Your task to perform on an android device: change text size in settings app Image 0: 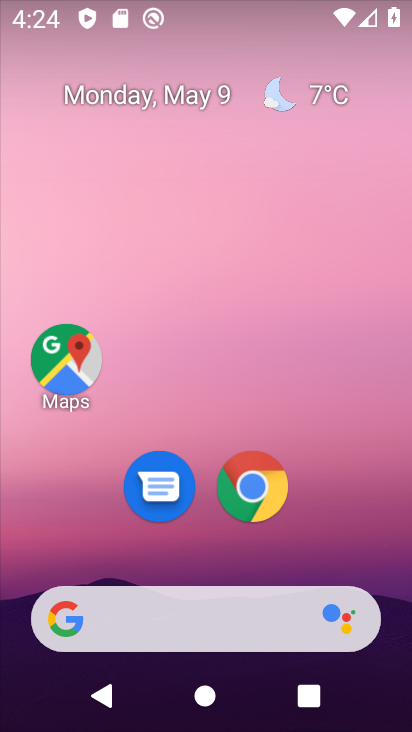
Step 0: drag from (212, 521) to (268, 215)
Your task to perform on an android device: change text size in settings app Image 1: 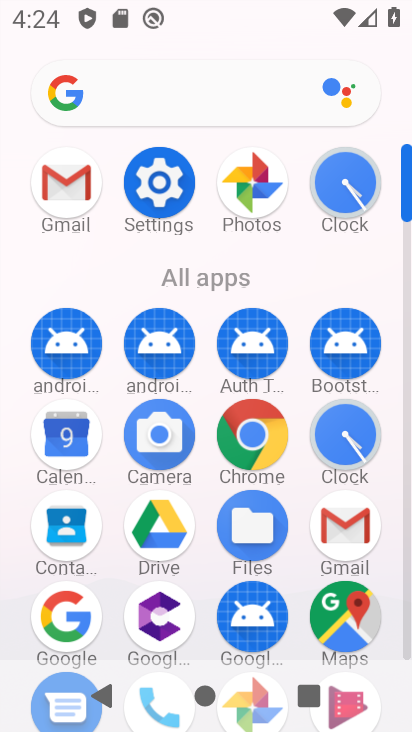
Step 1: click (171, 191)
Your task to perform on an android device: change text size in settings app Image 2: 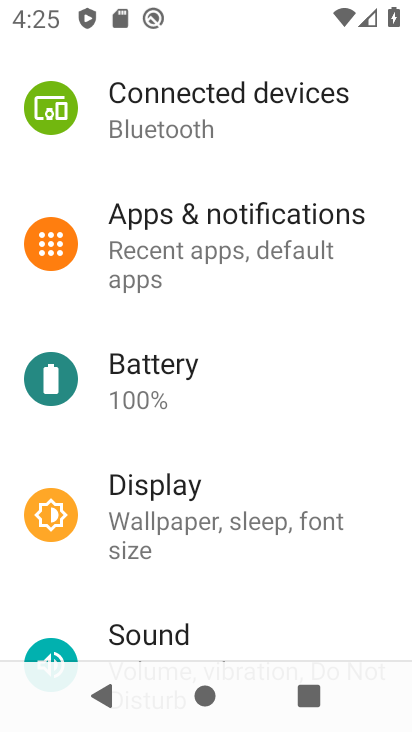
Step 2: click (210, 505)
Your task to perform on an android device: change text size in settings app Image 3: 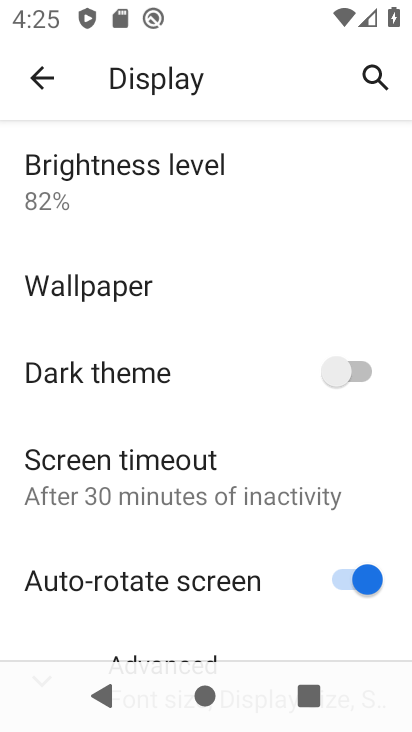
Step 3: drag from (184, 505) to (264, 183)
Your task to perform on an android device: change text size in settings app Image 4: 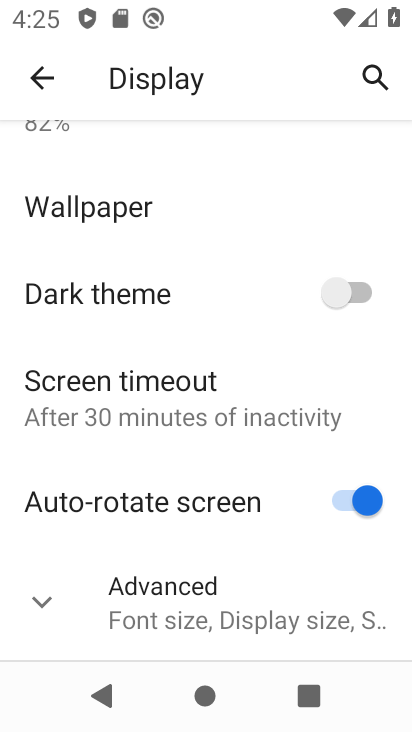
Step 4: click (204, 591)
Your task to perform on an android device: change text size in settings app Image 5: 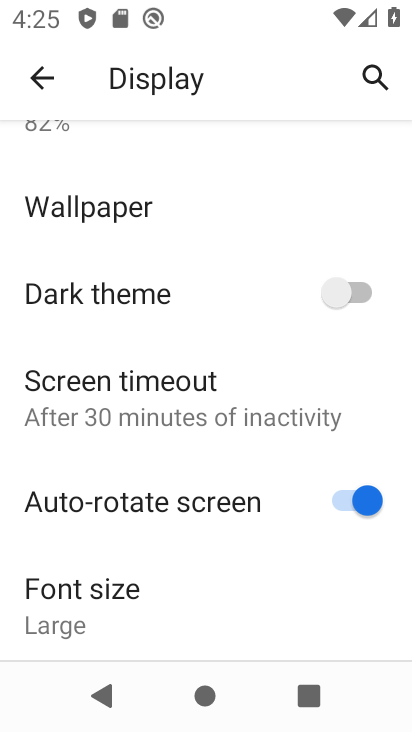
Step 5: click (139, 599)
Your task to perform on an android device: change text size in settings app Image 6: 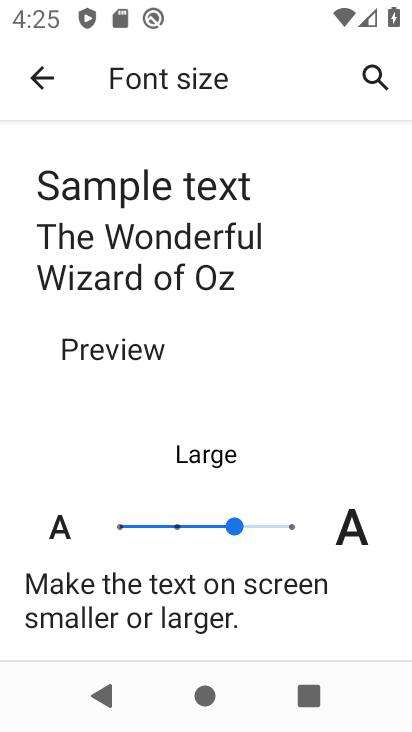
Step 6: click (176, 530)
Your task to perform on an android device: change text size in settings app Image 7: 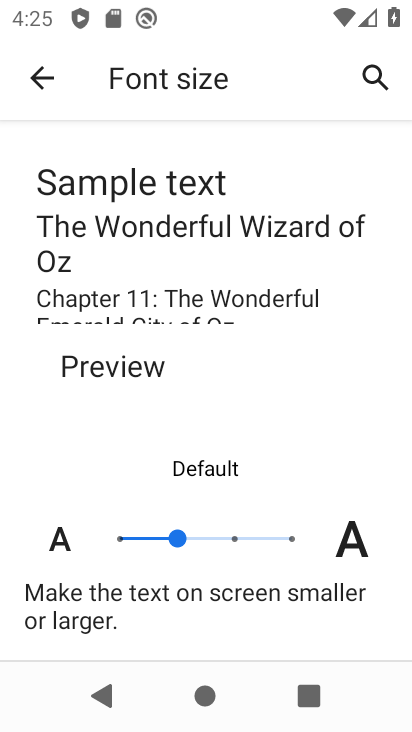
Step 7: task complete